Your task to perform on an android device: Go to sound settings Image 0: 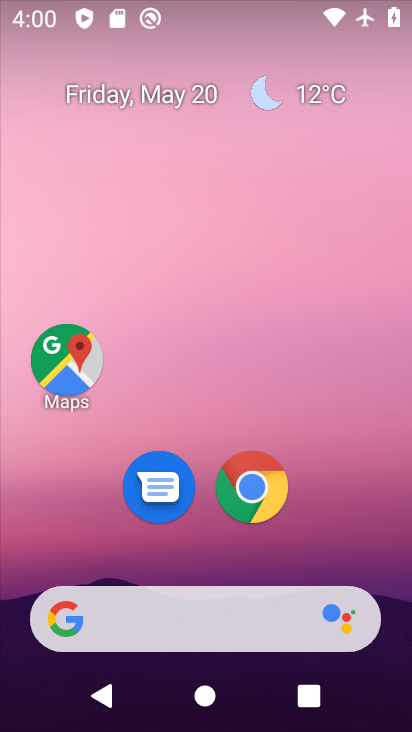
Step 0: drag from (310, 561) to (237, 247)
Your task to perform on an android device: Go to sound settings Image 1: 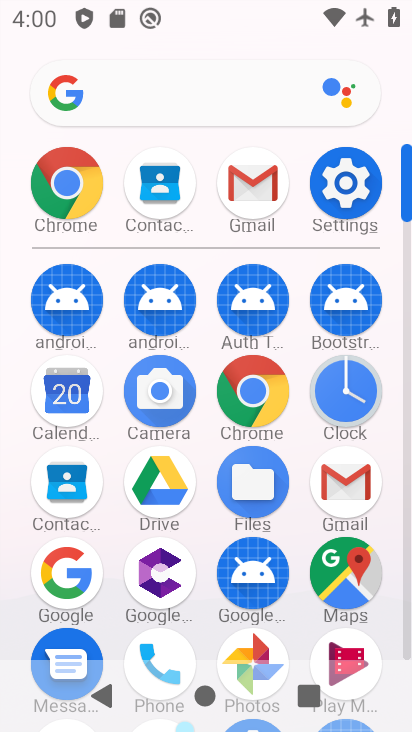
Step 1: click (345, 182)
Your task to perform on an android device: Go to sound settings Image 2: 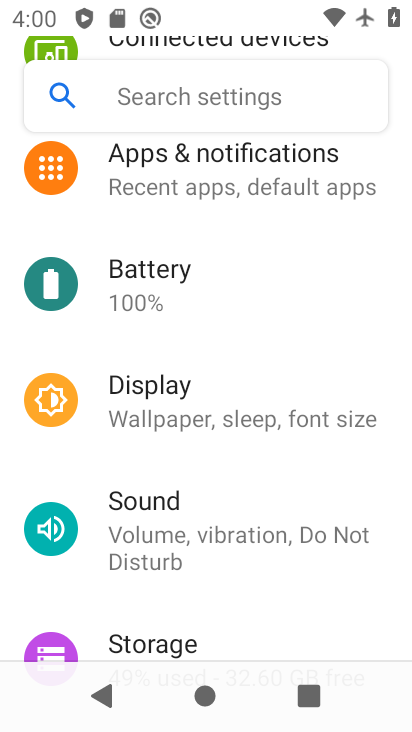
Step 2: click (159, 502)
Your task to perform on an android device: Go to sound settings Image 3: 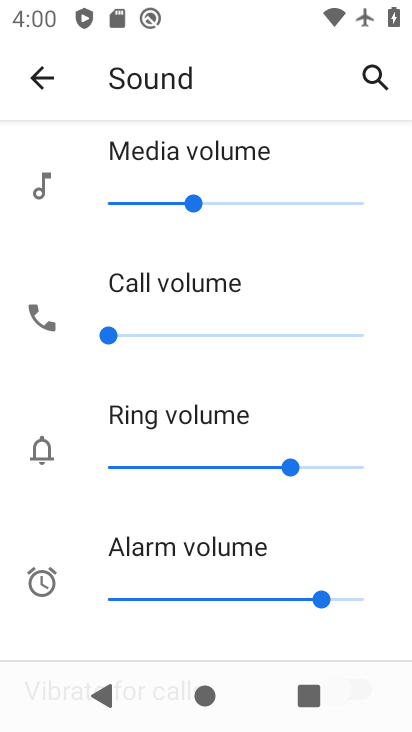
Step 3: task complete